Your task to perform on an android device: move an email to a new category in the gmail app Image 0: 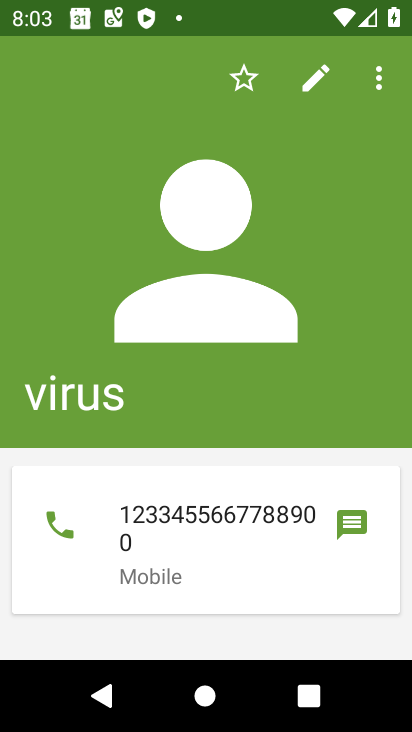
Step 0: press home button
Your task to perform on an android device: move an email to a new category in the gmail app Image 1: 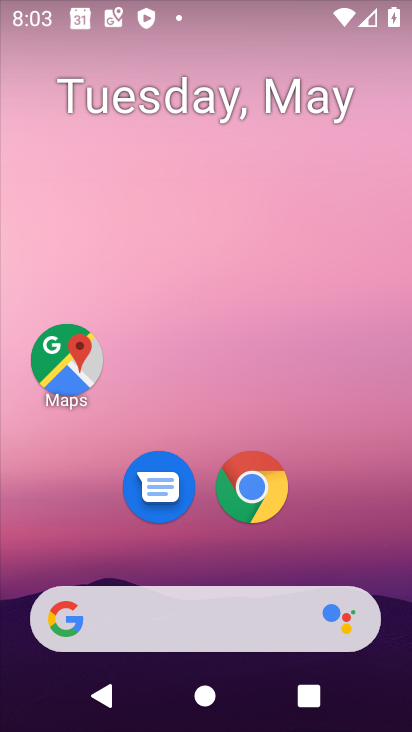
Step 1: drag from (310, 531) to (350, 222)
Your task to perform on an android device: move an email to a new category in the gmail app Image 2: 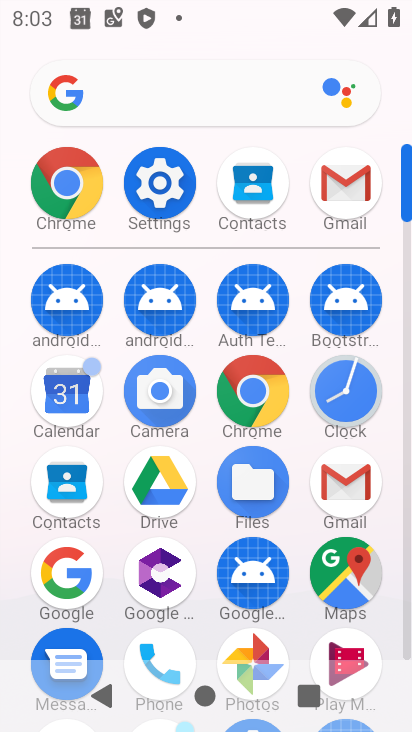
Step 2: click (355, 209)
Your task to perform on an android device: move an email to a new category in the gmail app Image 3: 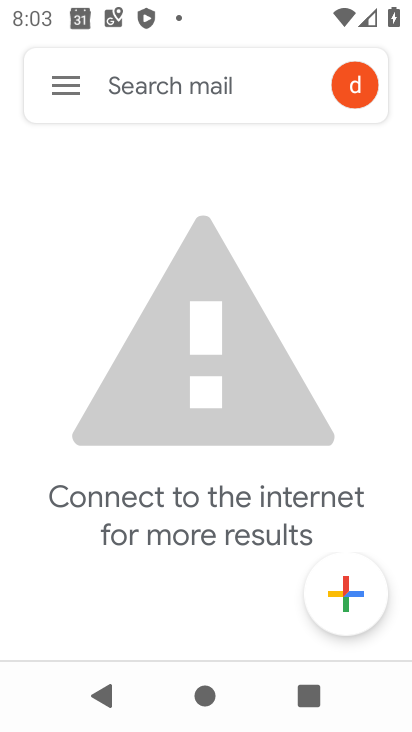
Step 3: click (69, 82)
Your task to perform on an android device: move an email to a new category in the gmail app Image 4: 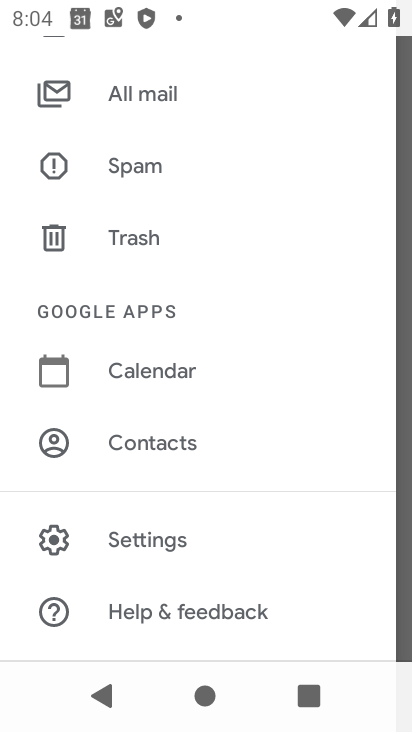
Step 4: drag from (210, 194) to (223, 296)
Your task to perform on an android device: move an email to a new category in the gmail app Image 5: 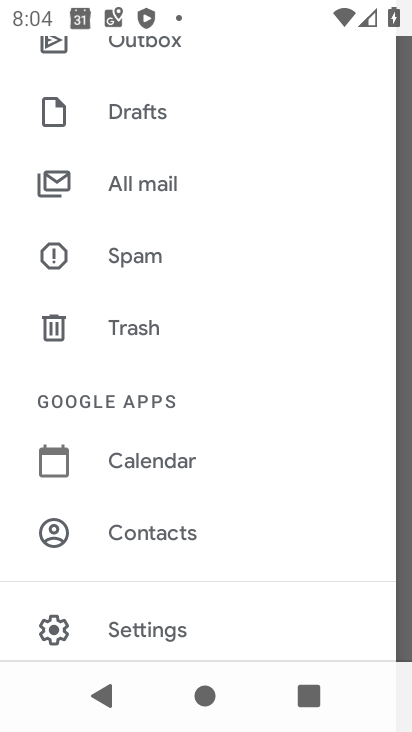
Step 5: drag from (243, 219) to (249, 307)
Your task to perform on an android device: move an email to a new category in the gmail app Image 6: 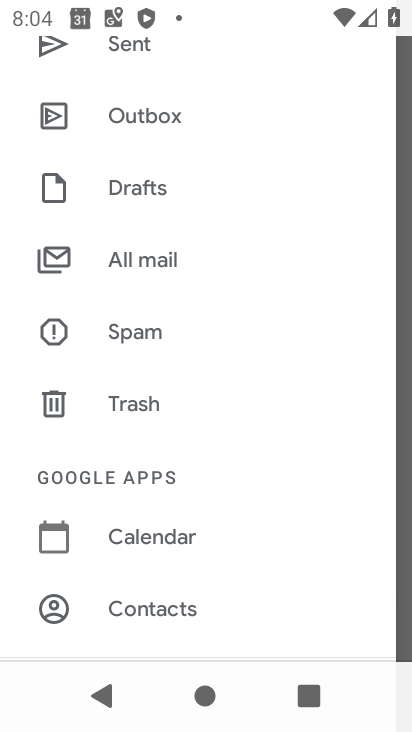
Step 6: drag from (250, 495) to (258, 315)
Your task to perform on an android device: move an email to a new category in the gmail app Image 7: 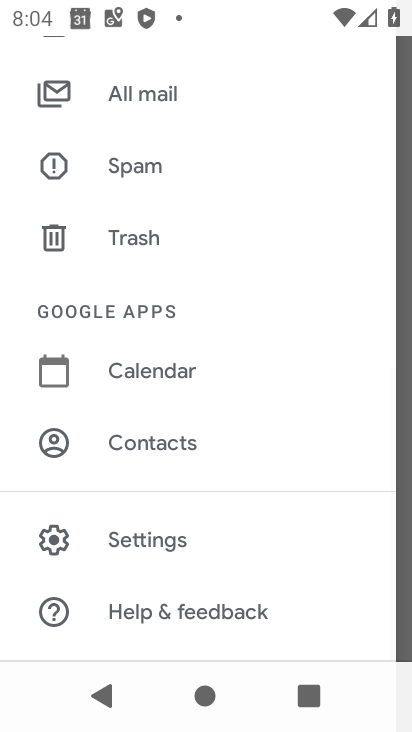
Step 7: drag from (271, 211) to (267, 413)
Your task to perform on an android device: move an email to a new category in the gmail app Image 8: 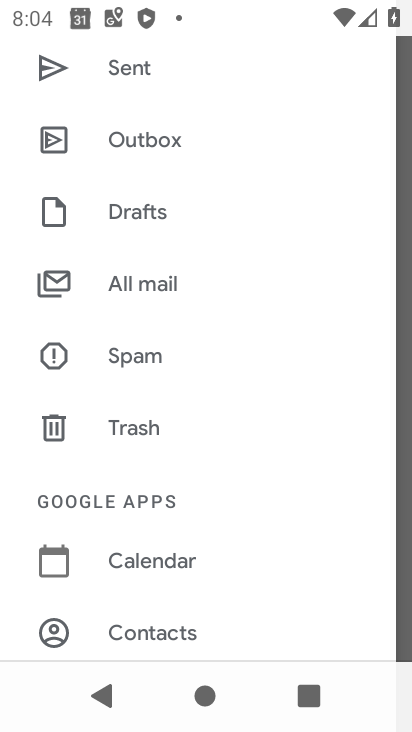
Step 8: drag from (262, 211) to (283, 347)
Your task to perform on an android device: move an email to a new category in the gmail app Image 9: 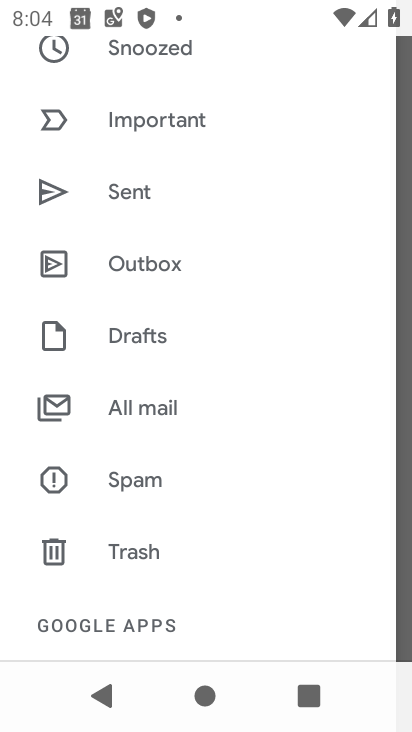
Step 9: drag from (290, 137) to (291, 314)
Your task to perform on an android device: move an email to a new category in the gmail app Image 10: 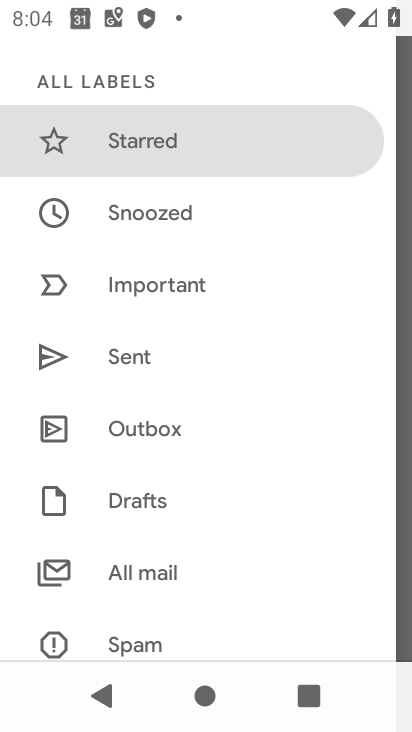
Step 10: drag from (291, 123) to (311, 300)
Your task to perform on an android device: move an email to a new category in the gmail app Image 11: 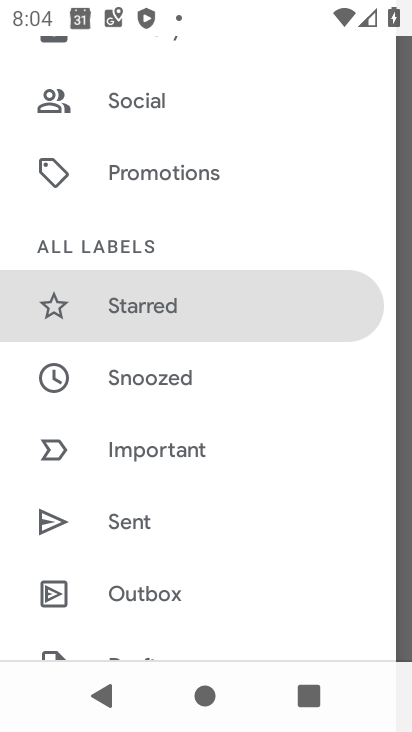
Step 11: drag from (296, 119) to (316, 254)
Your task to perform on an android device: move an email to a new category in the gmail app Image 12: 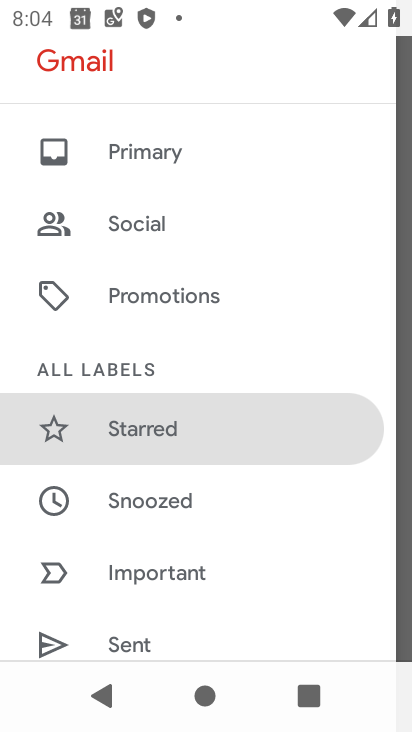
Step 12: click (204, 156)
Your task to perform on an android device: move an email to a new category in the gmail app Image 13: 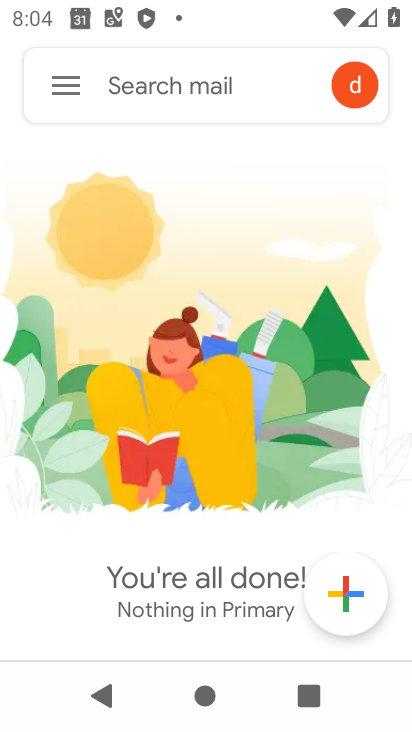
Step 13: task complete